Your task to perform on an android device: Is it going to rain today? Image 0: 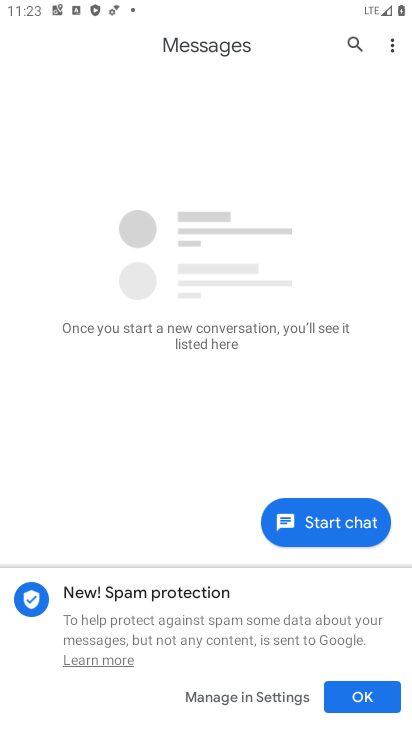
Step 0: press home button
Your task to perform on an android device: Is it going to rain today? Image 1: 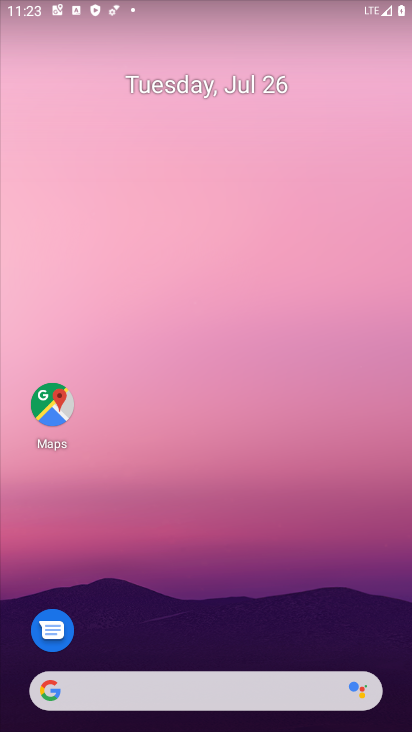
Step 1: drag from (329, 583) to (370, 15)
Your task to perform on an android device: Is it going to rain today? Image 2: 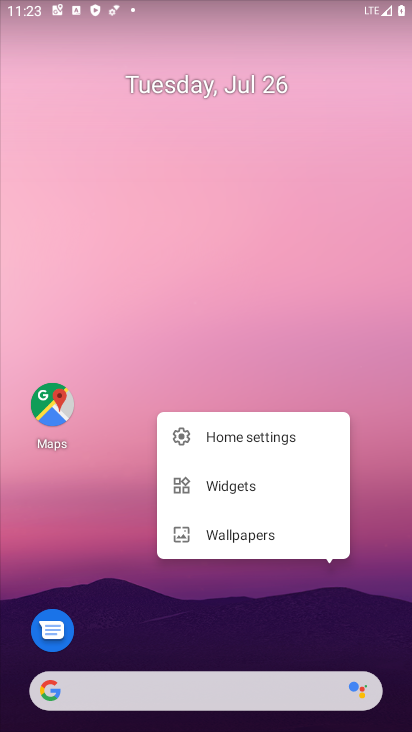
Step 2: click (260, 318)
Your task to perform on an android device: Is it going to rain today? Image 3: 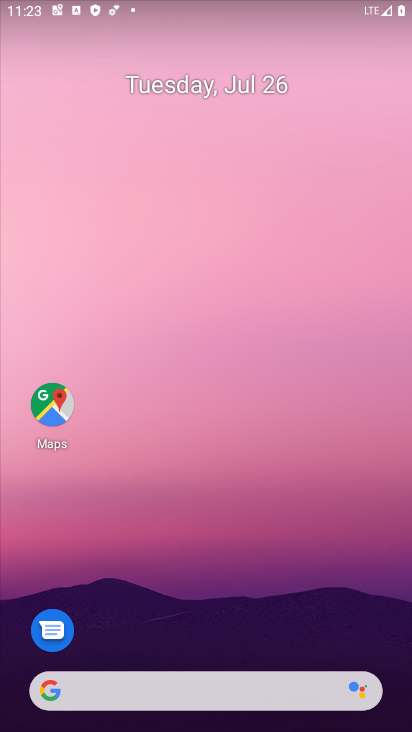
Step 3: drag from (315, 661) to (342, 50)
Your task to perform on an android device: Is it going to rain today? Image 4: 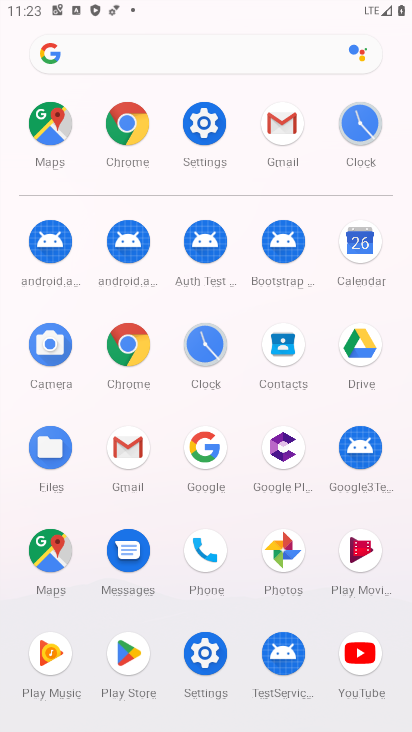
Step 4: click (206, 444)
Your task to perform on an android device: Is it going to rain today? Image 5: 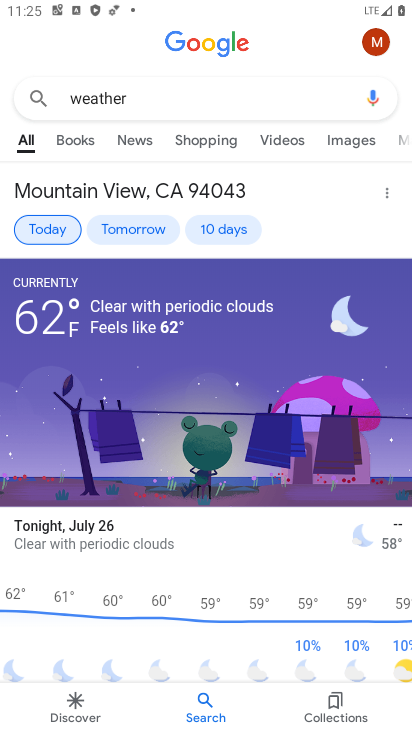
Step 5: task complete